Your task to perform on an android device: Open Yahoo.com Image 0: 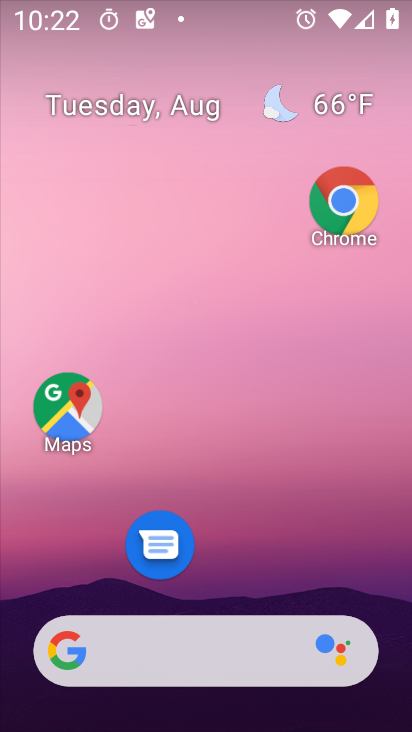
Step 0: drag from (242, 652) to (238, 130)
Your task to perform on an android device: Open Yahoo.com Image 1: 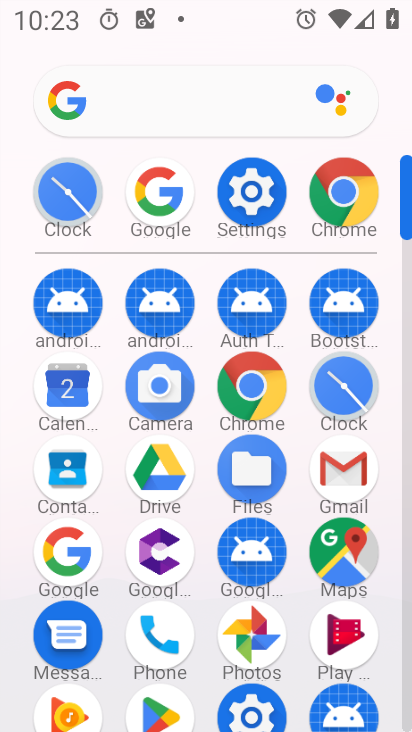
Step 1: click (349, 200)
Your task to perform on an android device: Open Yahoo.com Image 2: 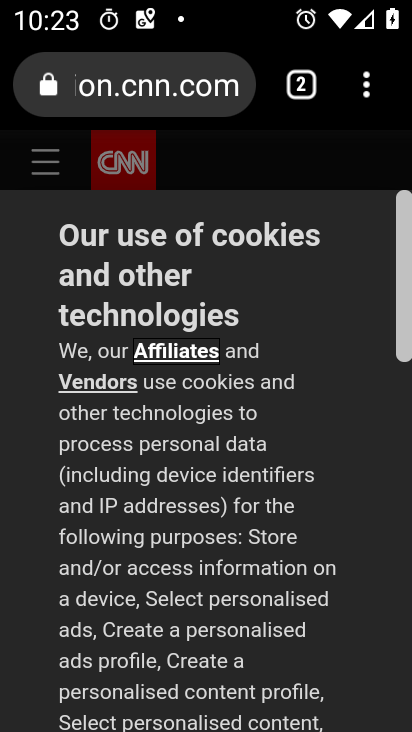
Step 2: click (186, 84)
Your task to perform on an android device: Open Yahoo.com Image 3: 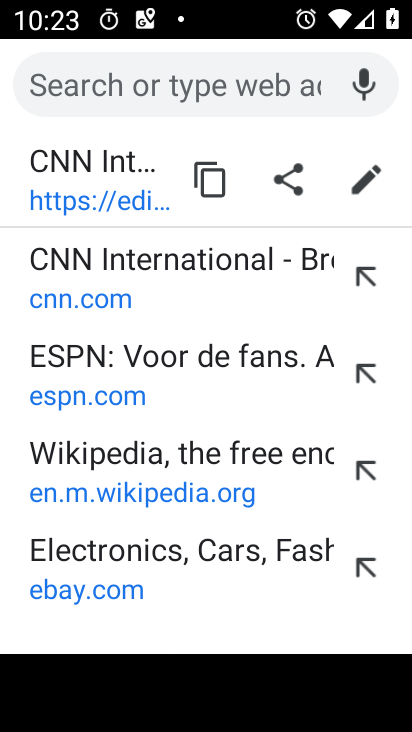
Step 3: type "yahoo.com"
Your task to perform on an android device: Open Yahoo.com Image 4: 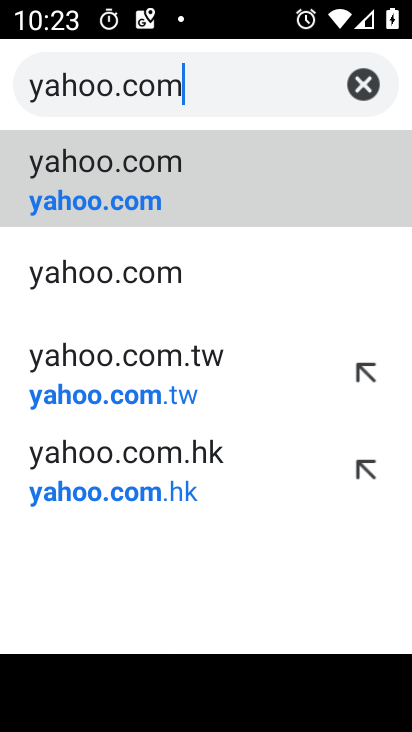
Step 4: click (188, 188)
Your task to perform on an android device: Open Yahoo.com Image 5: 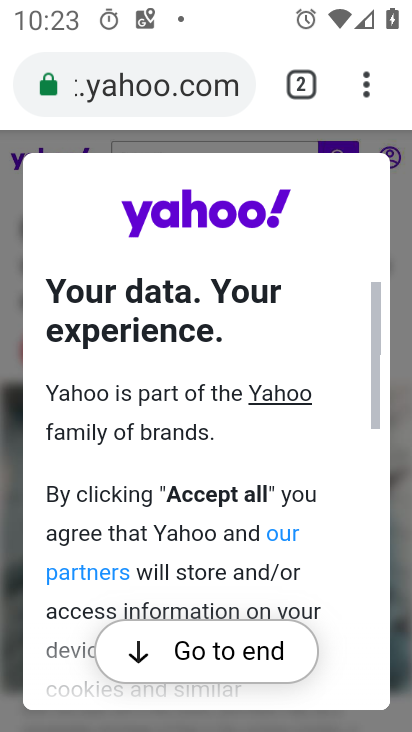
Step 5: task complete